Your task to perform on an android device: open the mobile data screen to see how much data has been used Image 0: 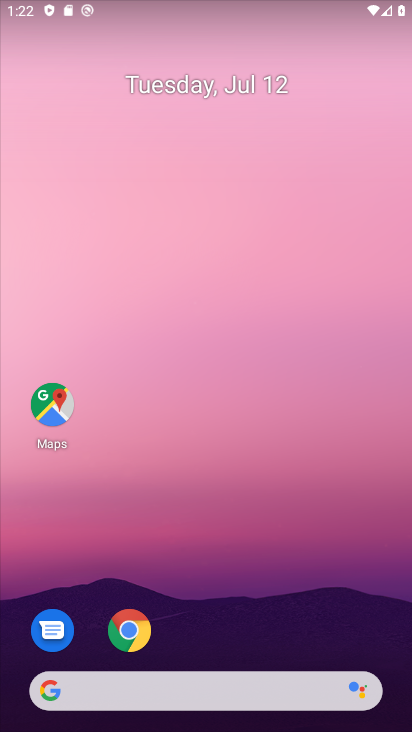
Step 0: drag from (352, 609) to (300, 128)
Your task to perform on an android device: open the mobile data screen to see how much data has been used Image 1: 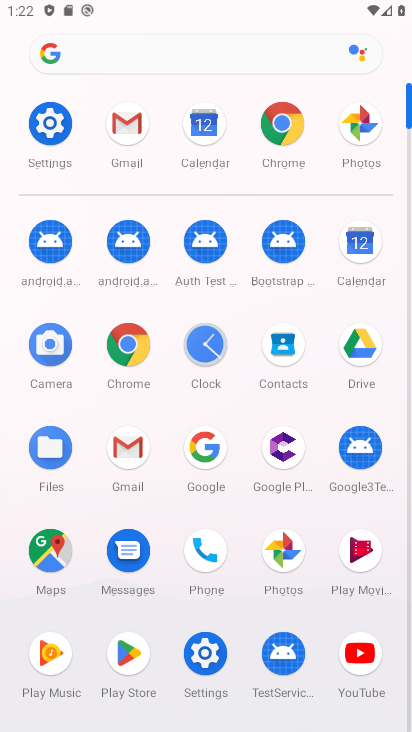
Step 1: click (201, 651)
Your task to perform on an android device: open the mobile data screen to see how much data has been used Image 2: 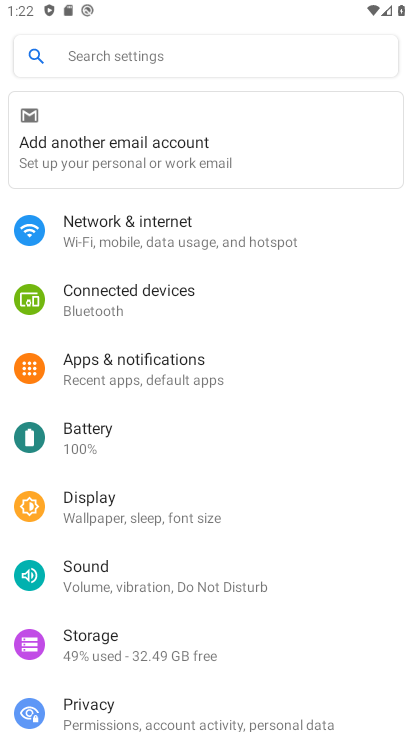
Step 2: click (117, 230)
Your task to perform on an android device: open the mobile data screen to see how much data has been used Image 3: 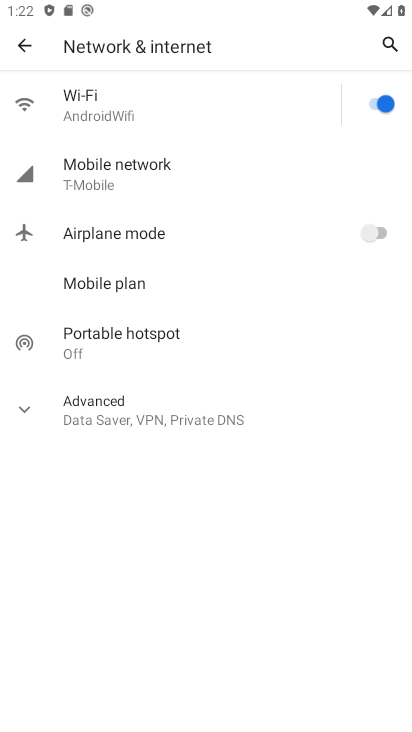
Step 3: click (107, 181)
Your task to perform on an android device: open the mobile data screen to see how much data has been used Image 4: 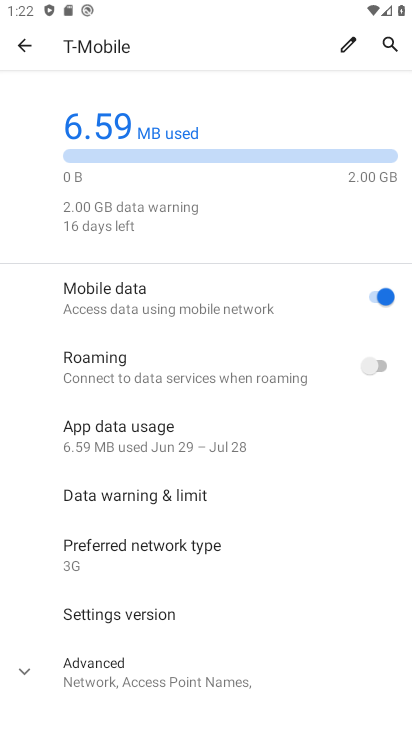
Step 4: task complete